Your task to perform on an android device: What's on my calendar tomorrow? Image 0: 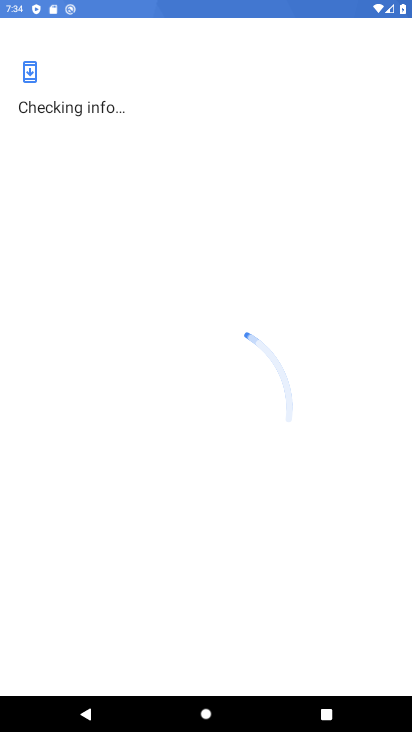
Step 0: press home button
Your task to perform on an android device: What's on my calendar tomorrow? Image 1: 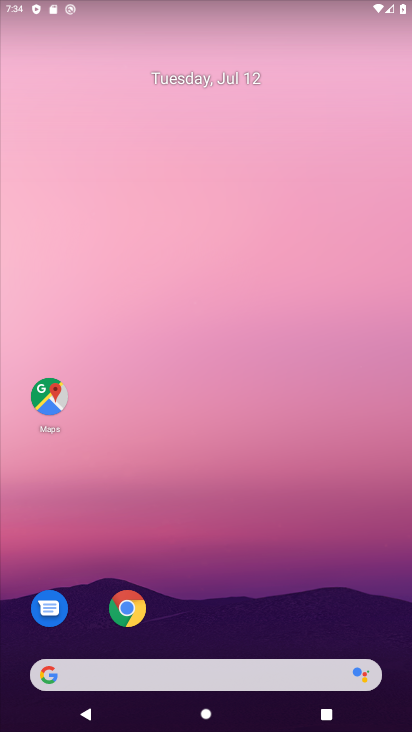
Step 1: drag from (235, 641) to (249, 301)
Your task to perform on an android device: What's on my calendar tomorrow? Image 2: 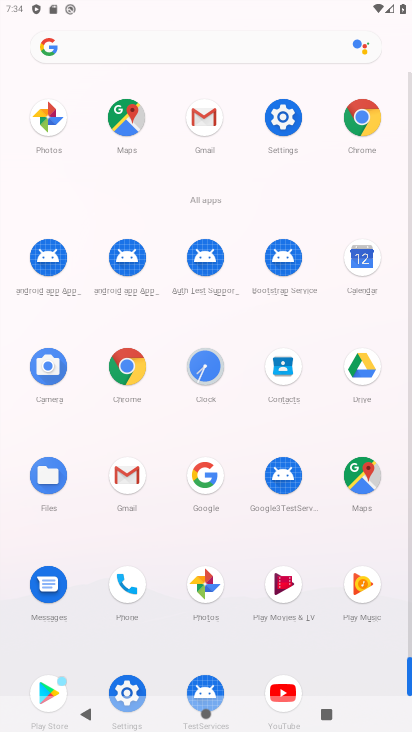
Step 2: click (354, 115)
Your task to perform on an android device: What's on my calendar tomorrow? Image 3: 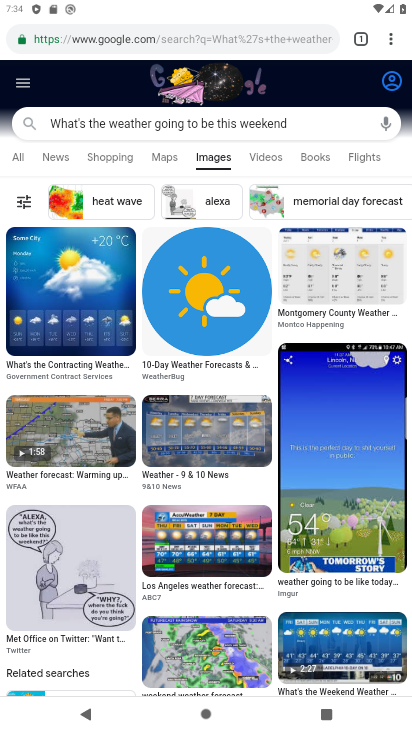
Step 3: click (396, 37)
Your task to perform on an android device: What's on my calendar tomorrow? Image 4: 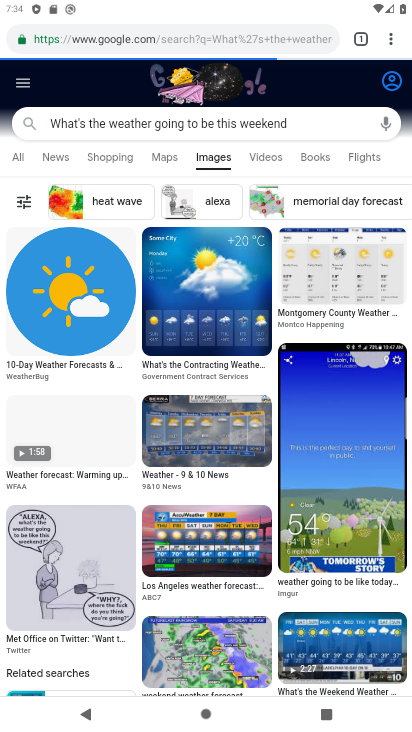
Step 4: click (383, 33)
Your task to perform on an android device: What's on my calendar tomorrow? Image 5: 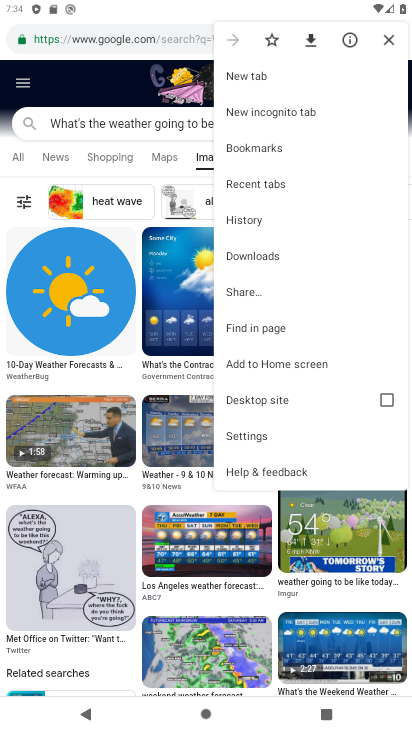
Step 5: click (247, 76)
Your task to perform on an android device: What's on my calendar tomorrow? Image 6: 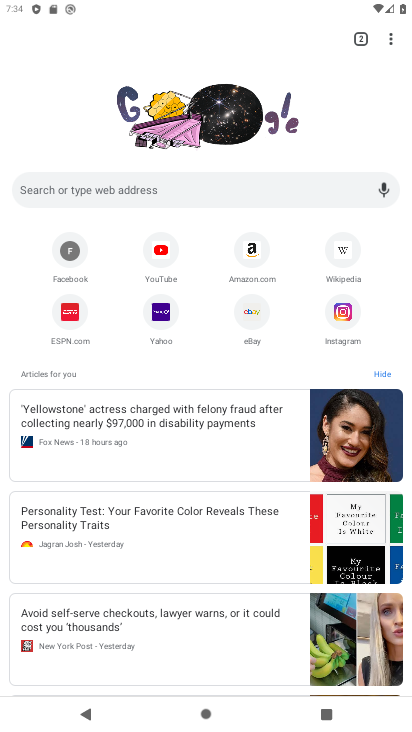
Step 6: click (151, 182)
Your task to perform on an android device: What's on my calendar tomorrow? Image 7: 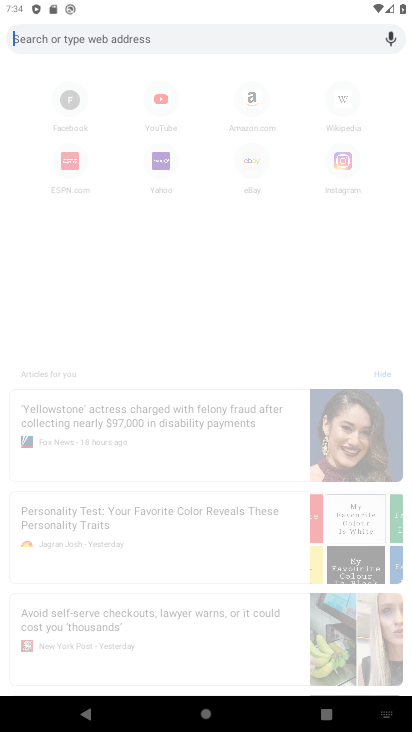
Step 7: type "What's on my calendar tomorrow "
Your task to perform on an android device: What's on my calendar tomorrow? Image 8: 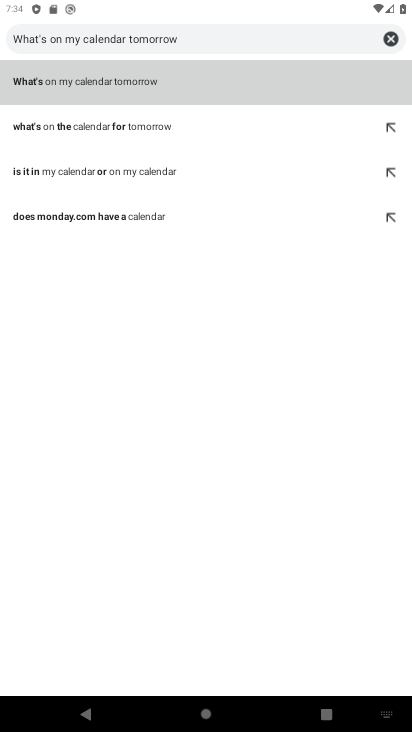
Step 8: click (143, 72)
Your task to perform on an android device: What's on my calendar tomorrow? Image 9: 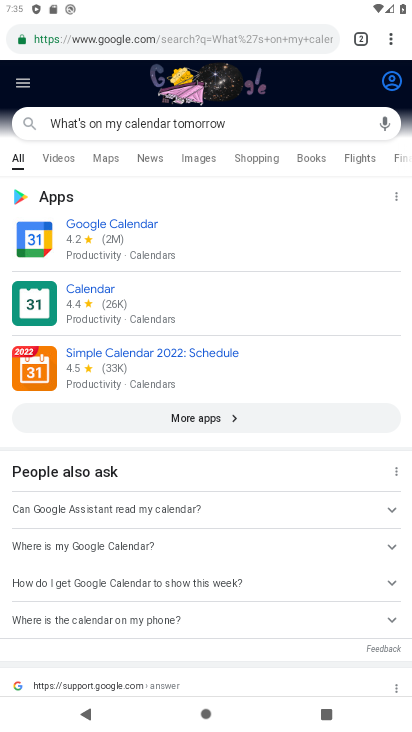
Step 9: task complete